Your task to perform on an android device: toggle data saver in the chrome app Image 0: 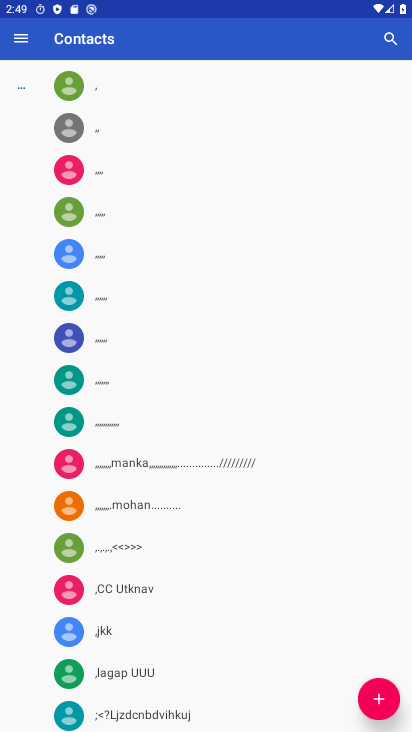
Step 0: drag from (392, 681) to (307, 152)
Your task to perform on an android device: toggle data saver in the chrome app Image 1: 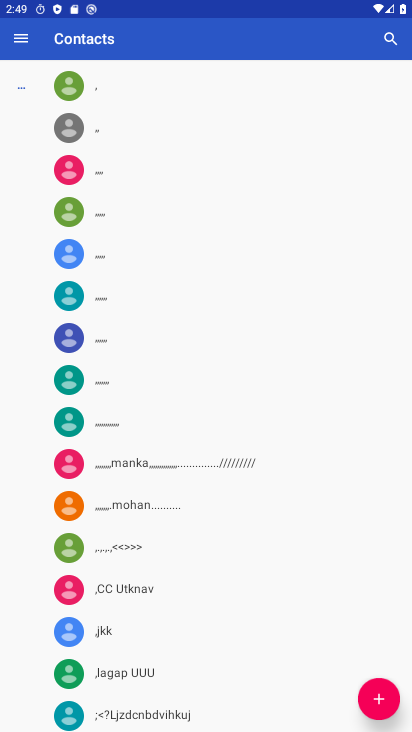
Step 1: press home button
Your task to perform on an android device: toggle data saver in the chrome app Image 2: 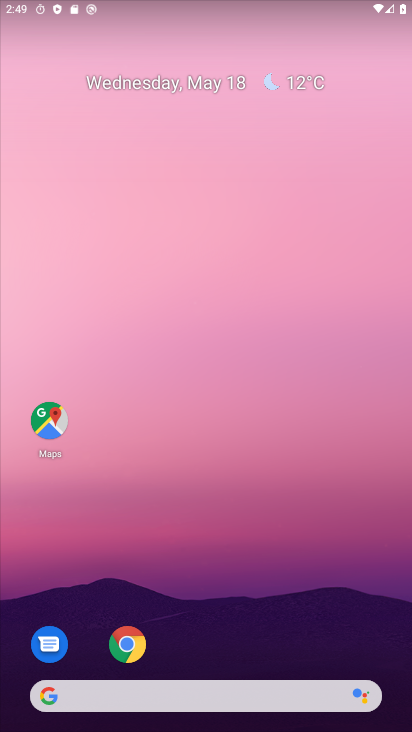
Step 2: click (132, 636)
Your task to perform on an android device: toggle data saver in the chrome app Image 3: 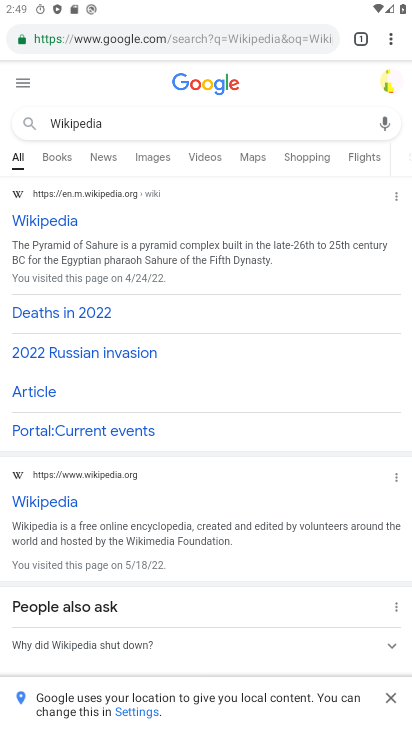
Step 3: click (392, 34)
Your task to perform on an android device: toggle data saver in the chrome app Image 4: 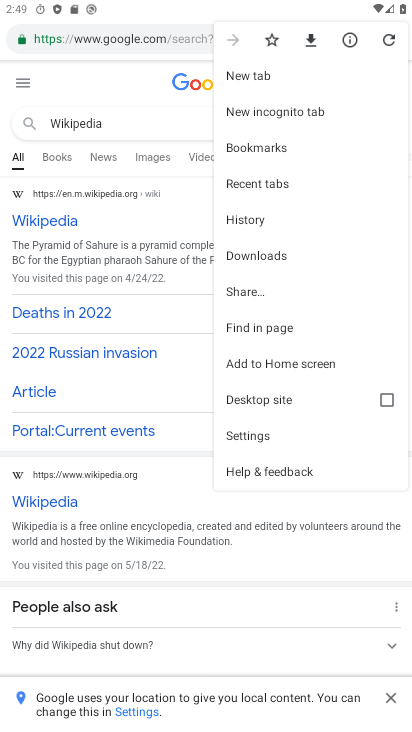
Step 4: click (247, 428)
Your task to perform on an android device: toggle data saver in the chrome app Image 5: 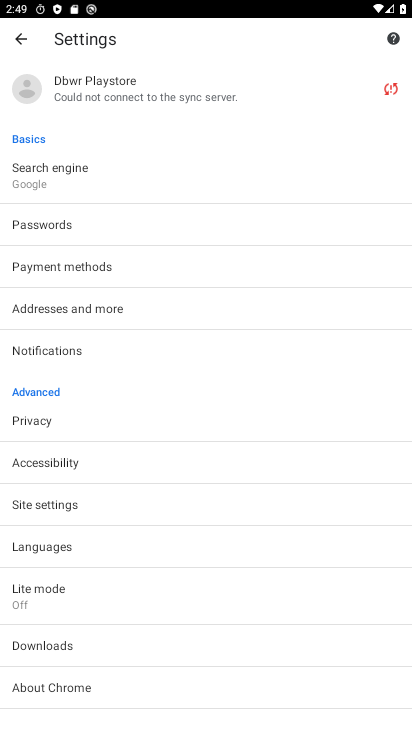
Step 5: click (60, 584)
Your task to perform on an android device: toggle data saver in the chrome app Image 6: 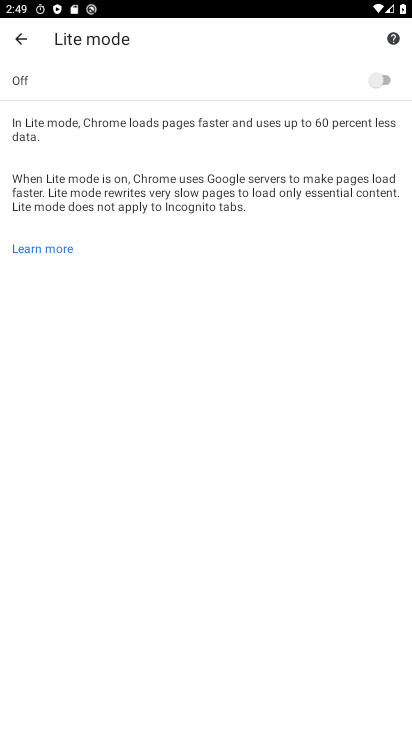
Step 6: click (384, 73)
Your task to perform on an android device: toggle data saver in the chrome app Image 7: 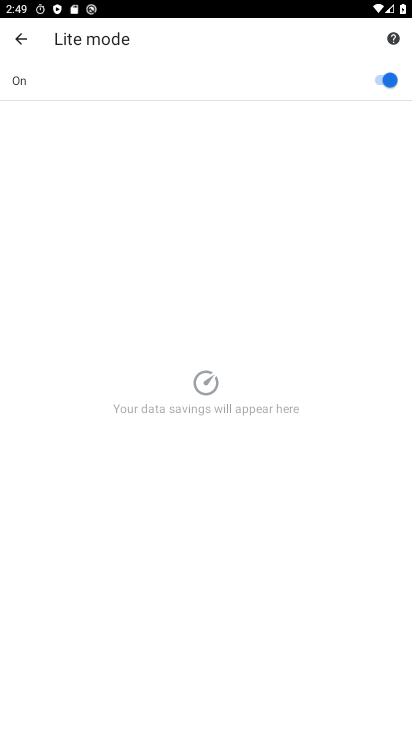
Step 7: task complete